Your task to perform on an android device: turn on notifications settings in the gmail app Image 0: 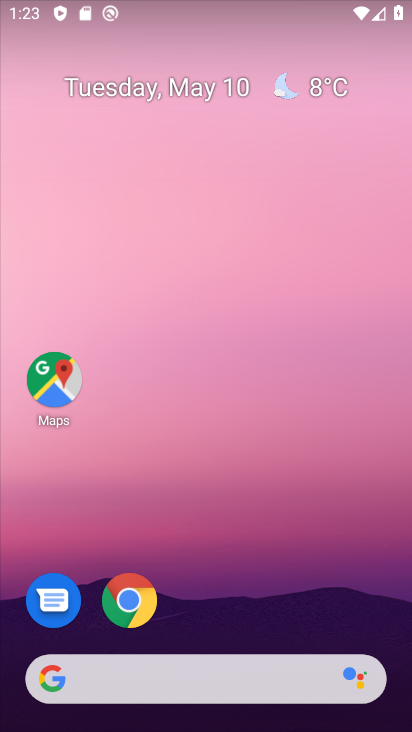
Step 0: drag from (210, 627) to (253, 143)
Your task to perform on an android device: turn on notifications settings in the gmail app Image 1: 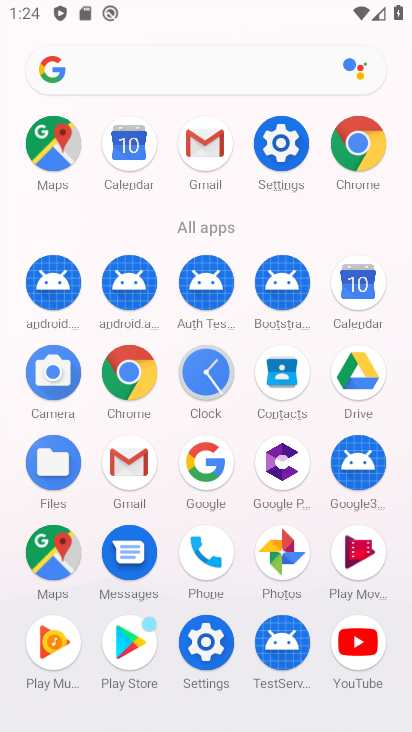
Step 1: click (122, 453)
Your task to perform on an android device: turn on notifications settings in the gmail app Image 2: 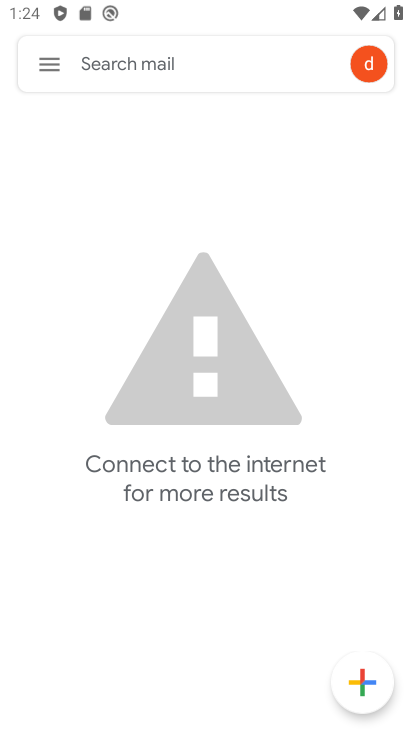
Step 2: click (46, 65)
Your task to perform on an android device: turn on notifications settings in the gmail app Image 3: 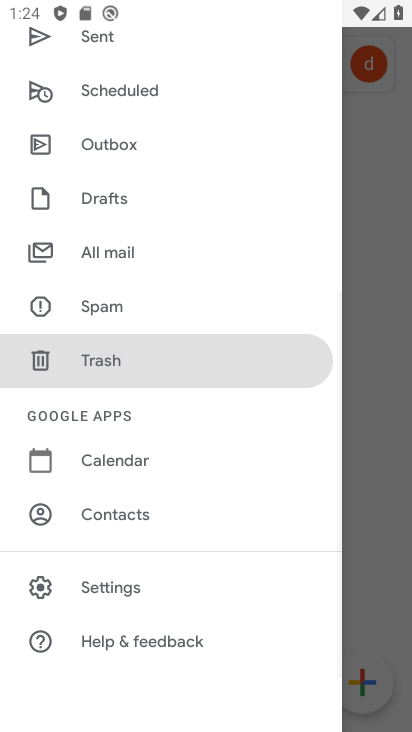
Step 3: click (119, 581)
Your task to perform on an android device: turn on notifications settings in the gmail app Image 4: 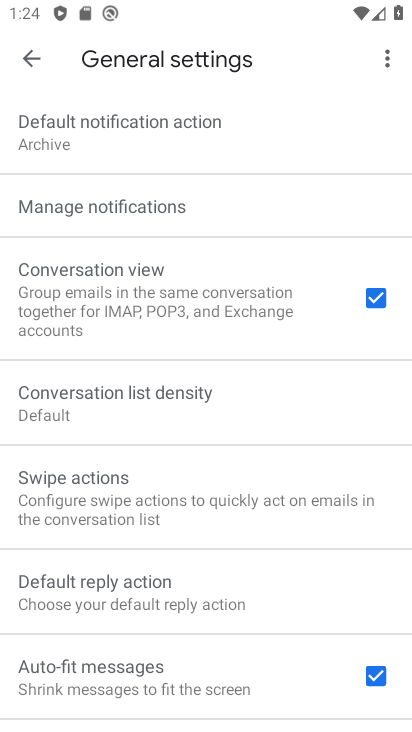
Step 4: click (194, 204)
Your task to perform on an android device: turn on notifications settings in the gmail app Image 5: 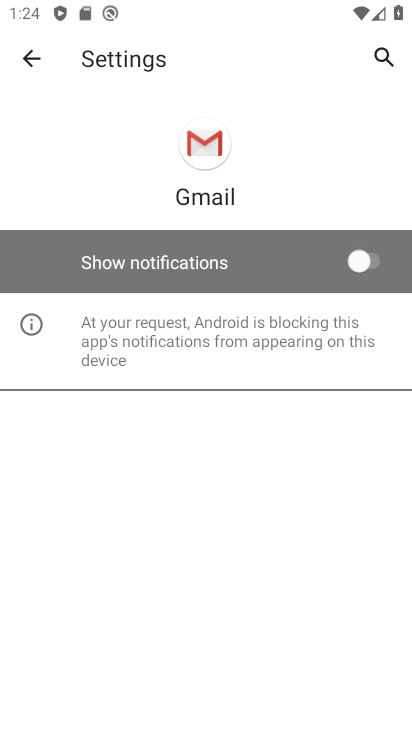
Step 5: click (367, 257)
Your task to perform on an android device: turn on notifications settings in the gmail app Image 6: 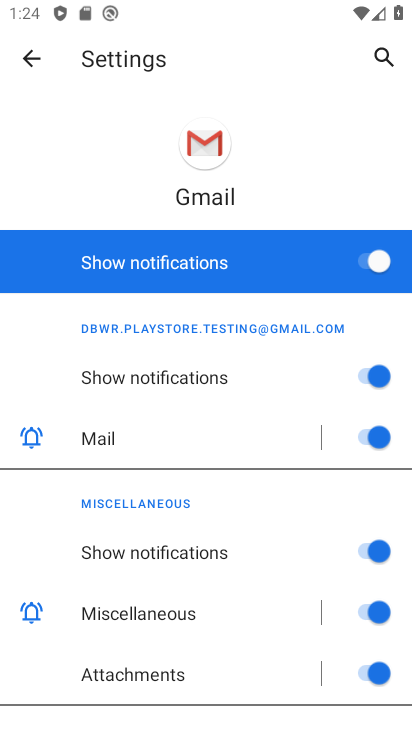
Step 6: task complete